Your task to perform on an android device: Open Google Chrome and open the bookmarks view Image 0: 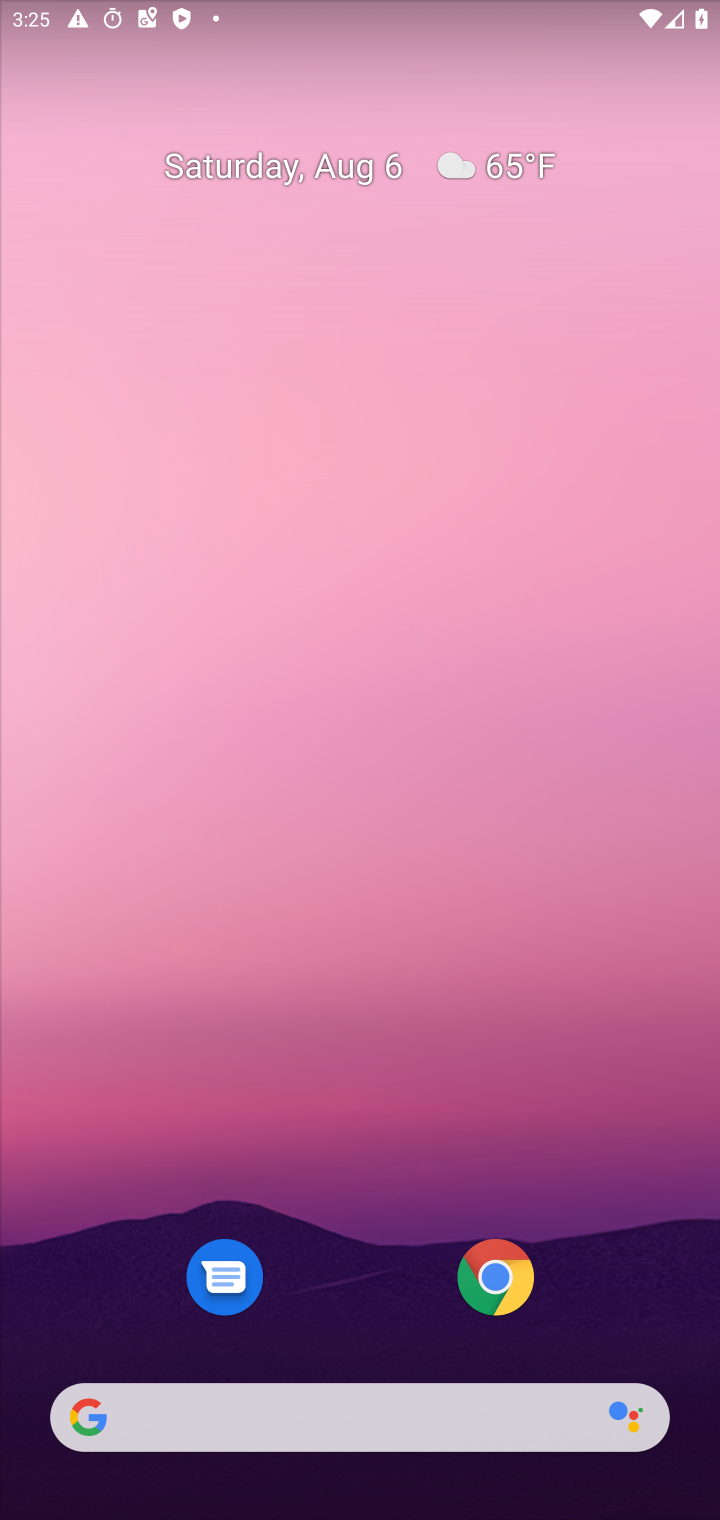
Step 0: drag from (334, 1426) to (230, 43)
Your task to perform on an android device: Open Google Chrome and open the bookmarks view Image 1: 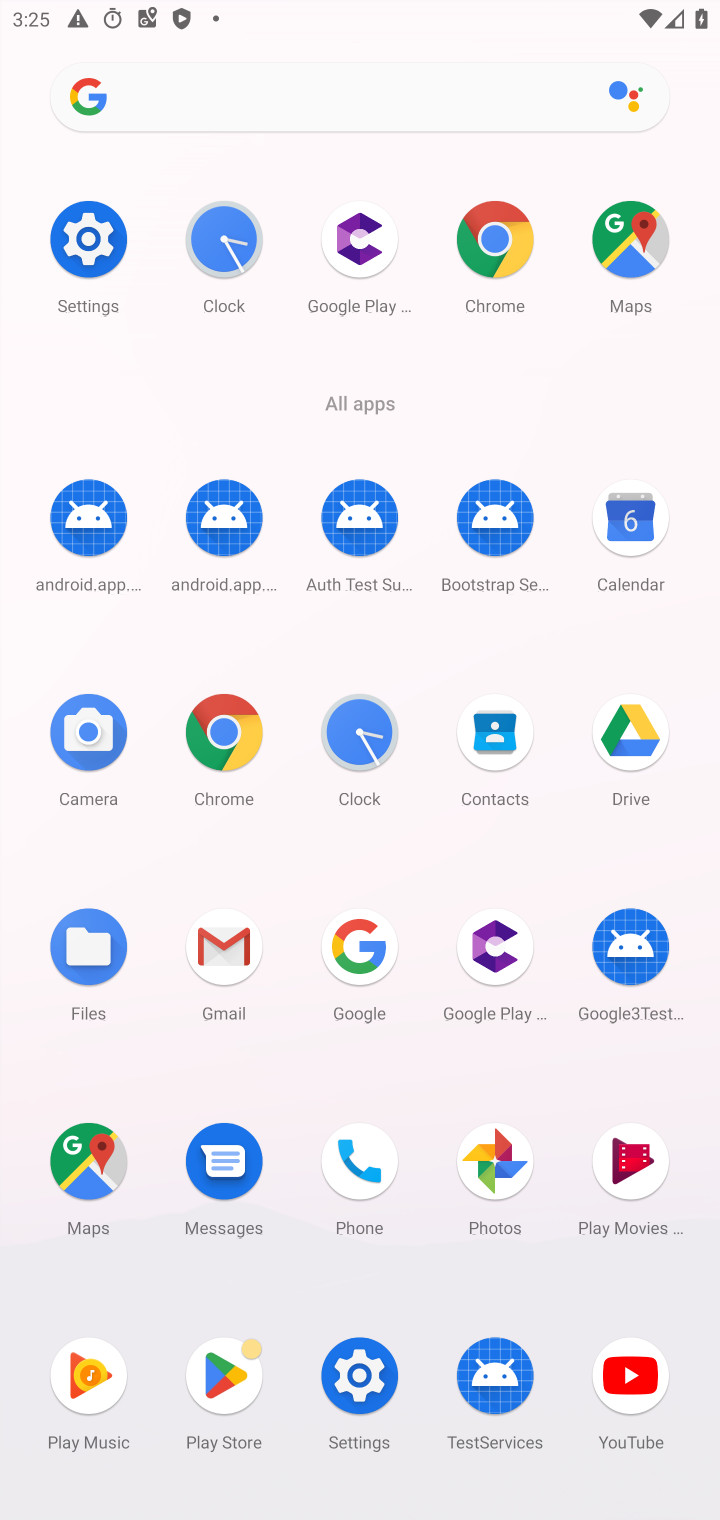
Step 1: click (225, 748)
Your task to perform on an android device: Open Google Chrome and open the bookmarks view Image 2: 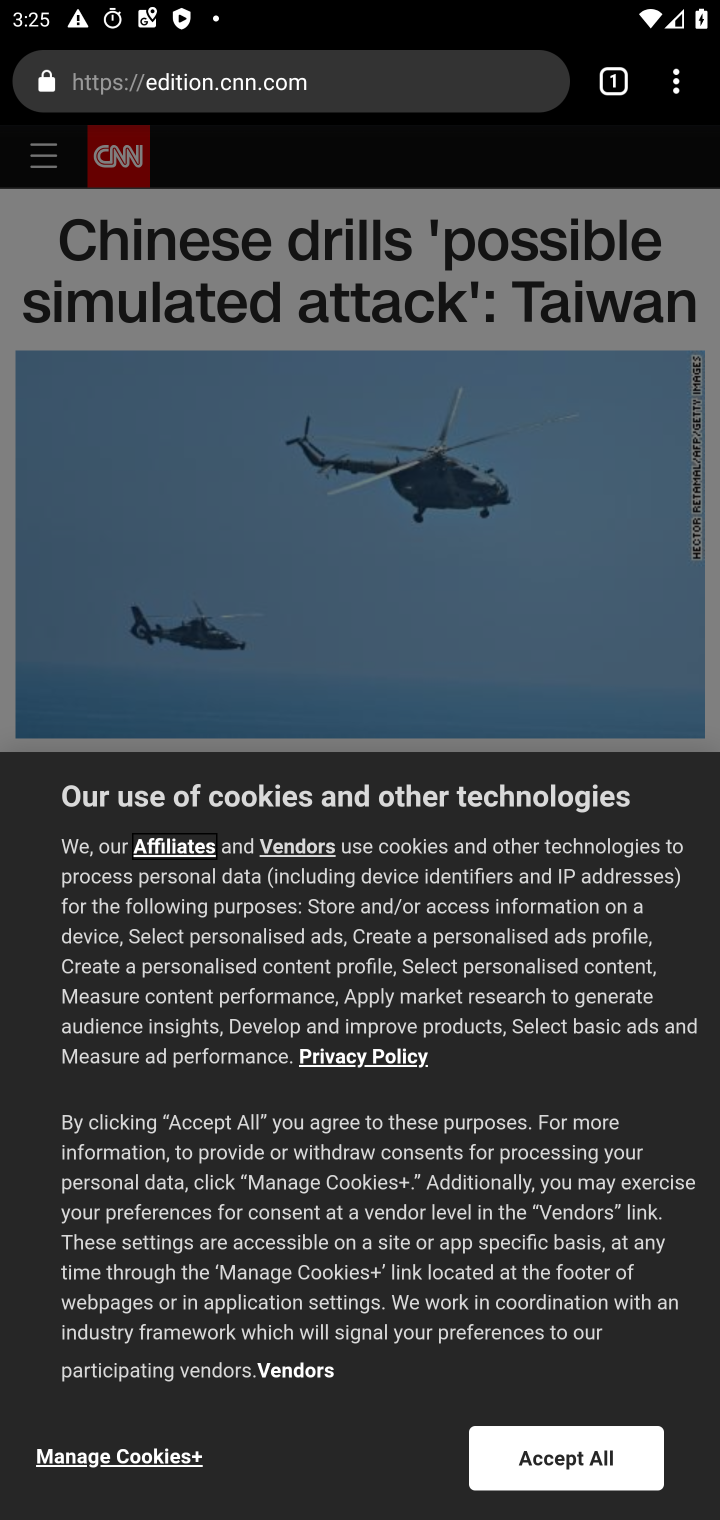
Step 2: click (680, 76)
Your task to perform on an android device: Open Google Chrome and open the bookmarks view Image 3: 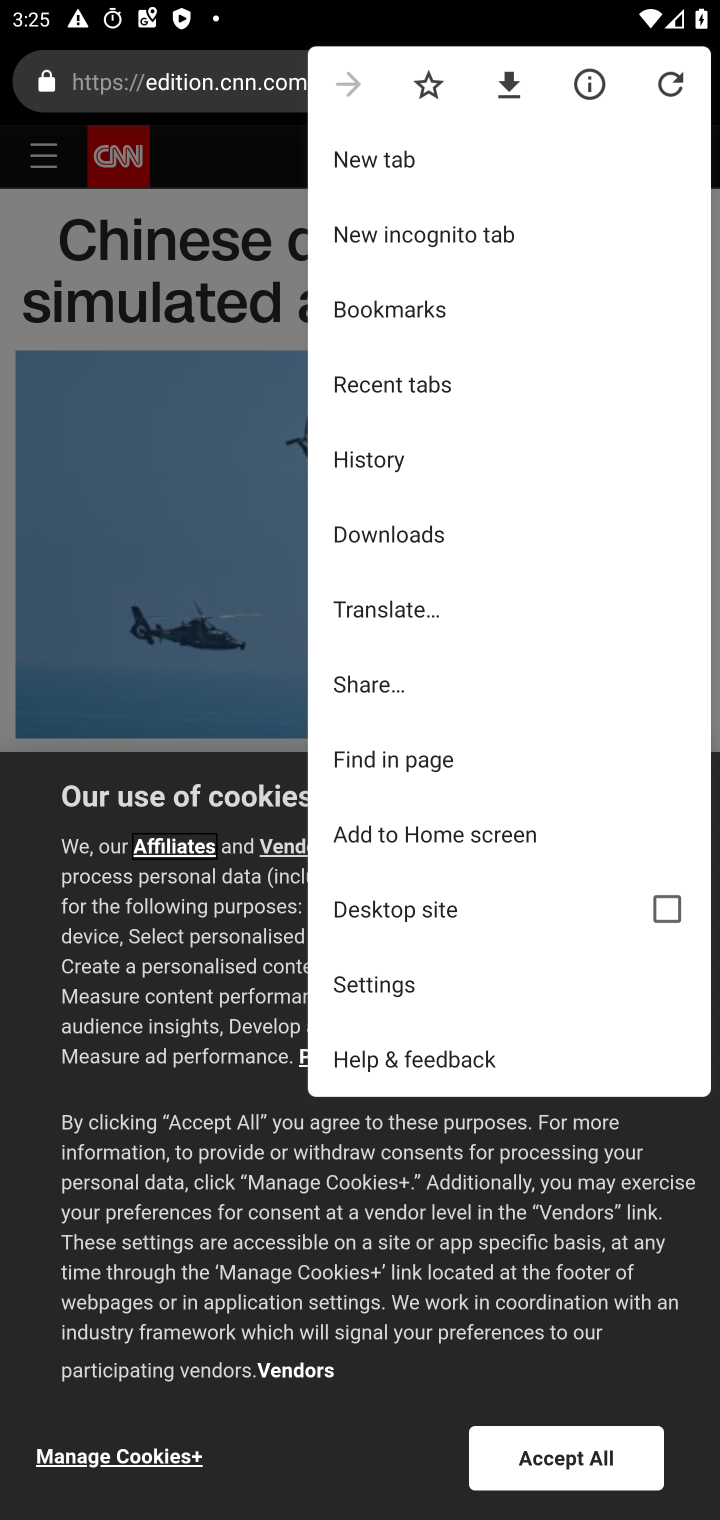
Step 3: click (447, 307)
Your task to perform on an android device: Open Google Chrome and open the bookmarks view Image 4: 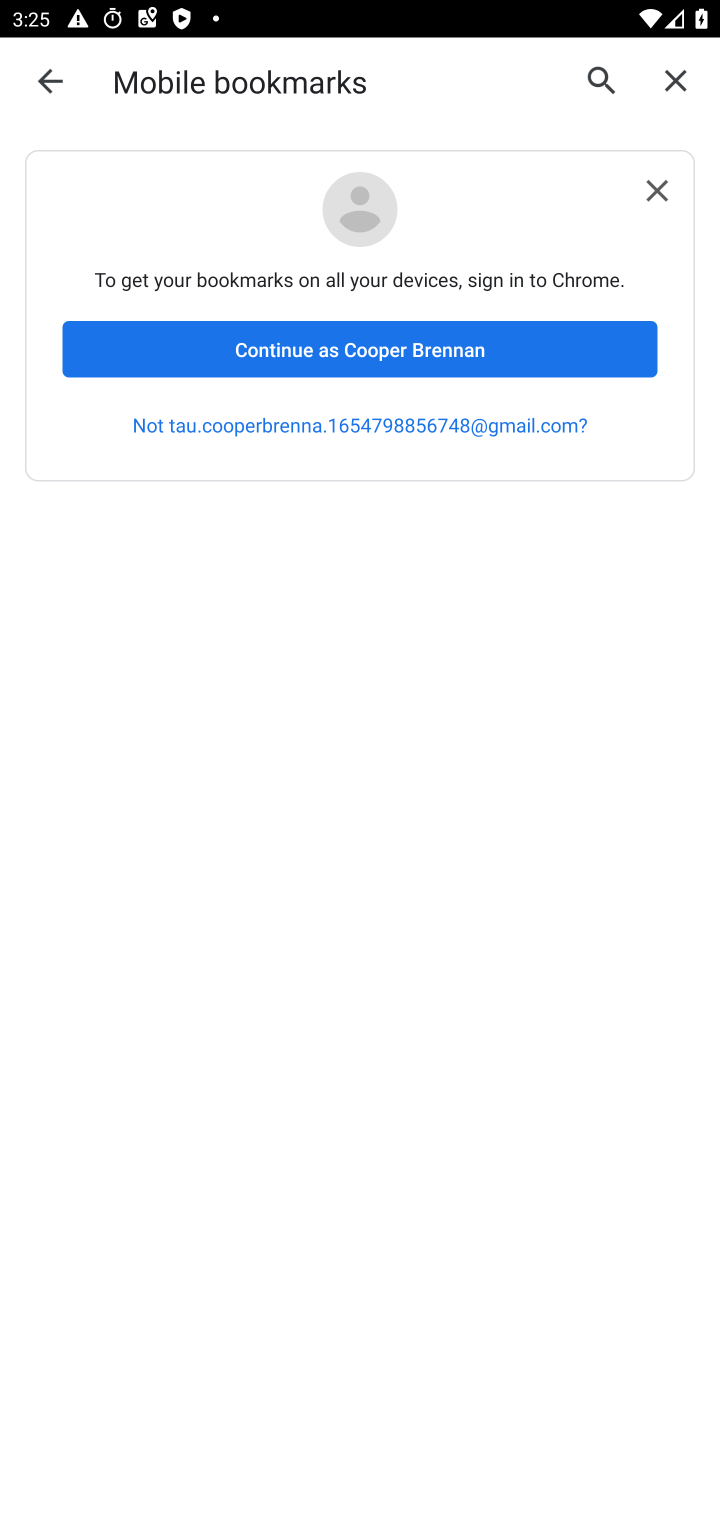
Step 4: task complete